Your task to perform on an android device: open app "Google Find My Device" (install if not already installed) Image 0: 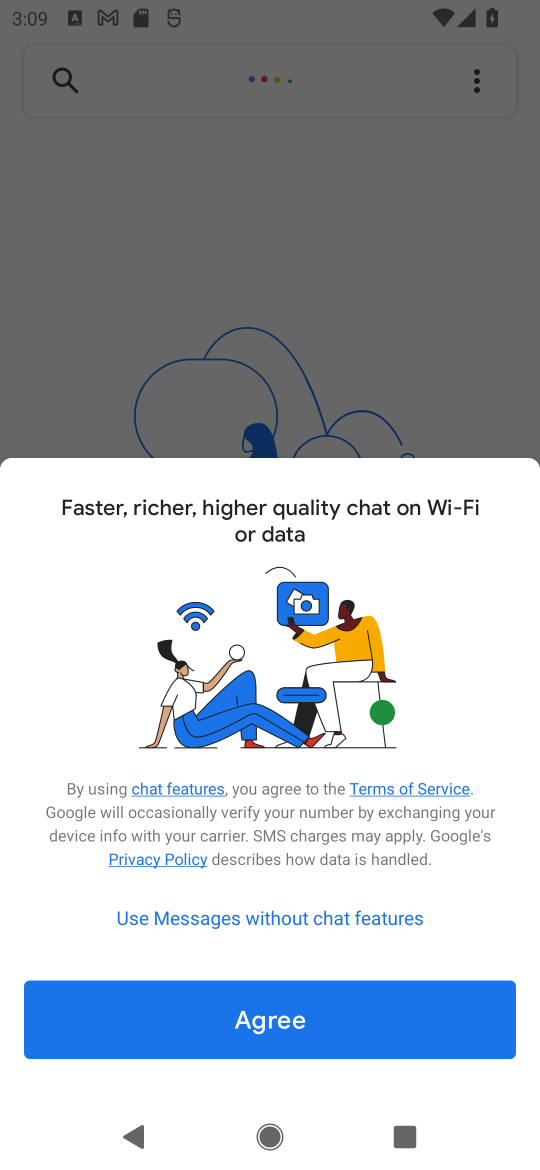
Step 0: press home button
Your task to perform on an android device: open app "Google Find My Device" (install if not already installed) Image 1: 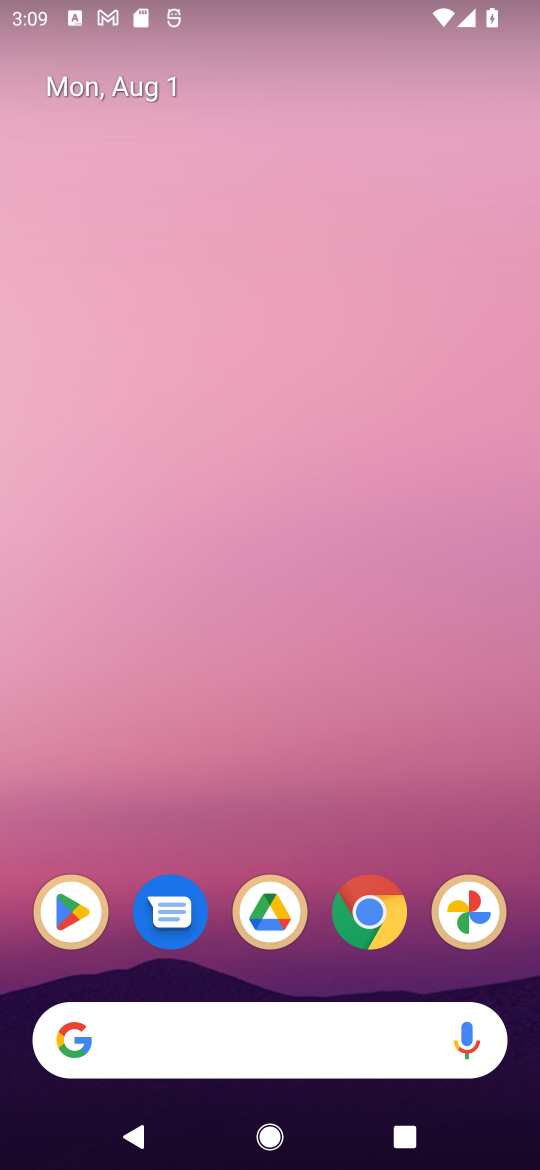
Step 1: click (89, 923)
Your task to perform on an android device: open app "Google Find My Device" (install if not already installed) Image 2: 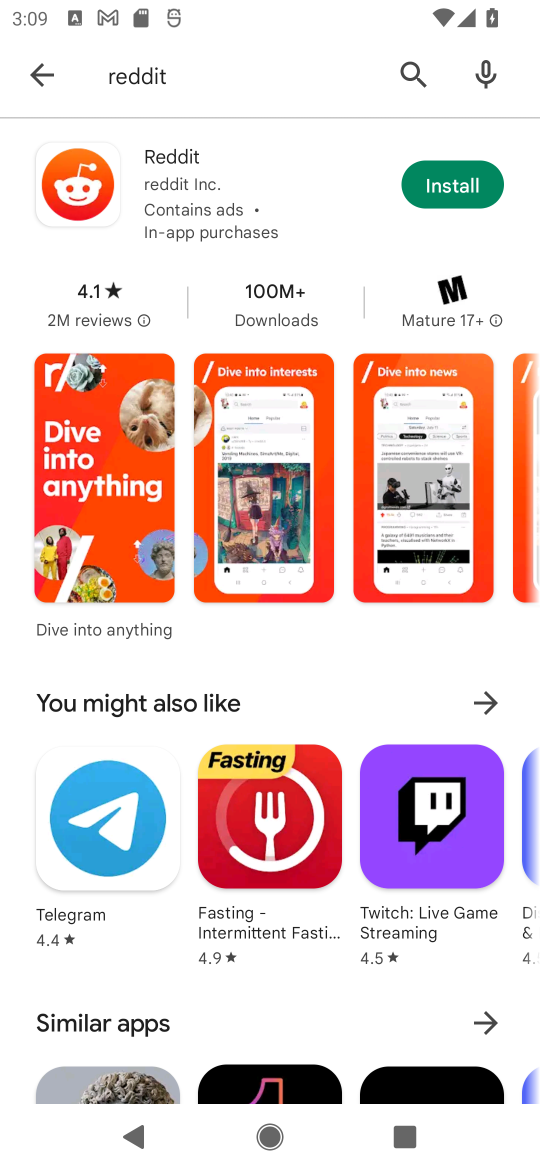
Step 2: click (414, 72)
Your task to perform on an android device: open app "Google Find My Device" (install if not already installed) Image 3: 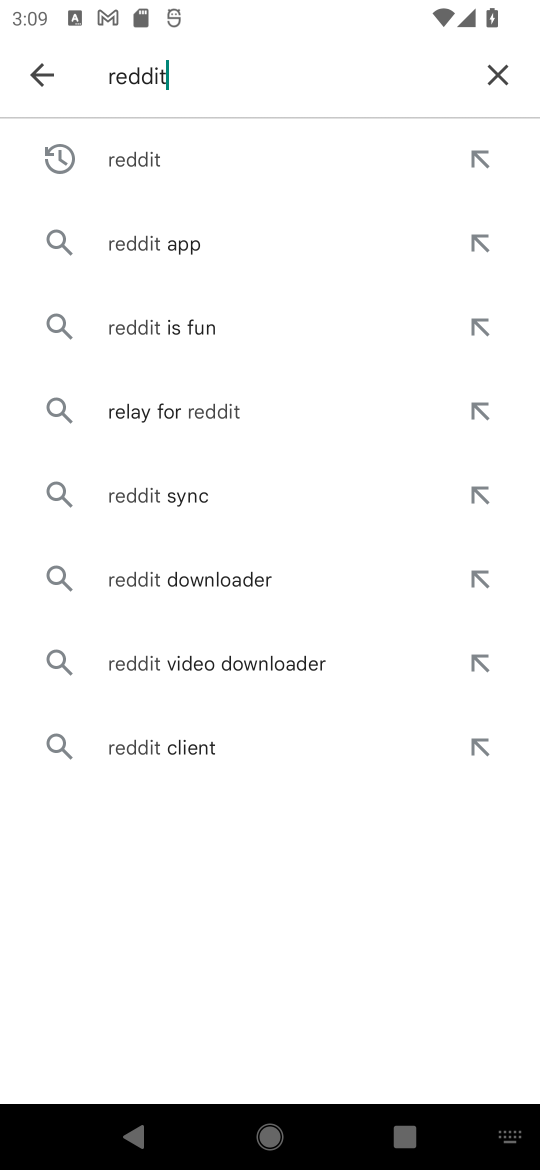
Step 3: click (500, 78)
Your task to perform on an android device: open app "Google Find My Device" (install if not already installed) Image 4: 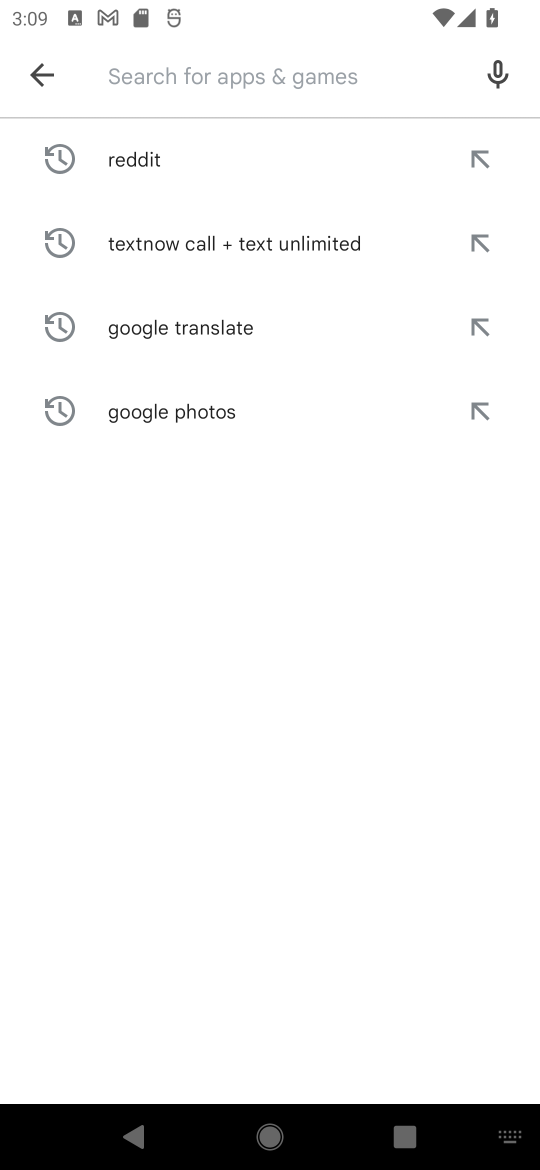
Step 4: type "Google Find My Device"
Your task to perform on an android device: open app "Google Find My Device" (install if not already installed) Image 5: 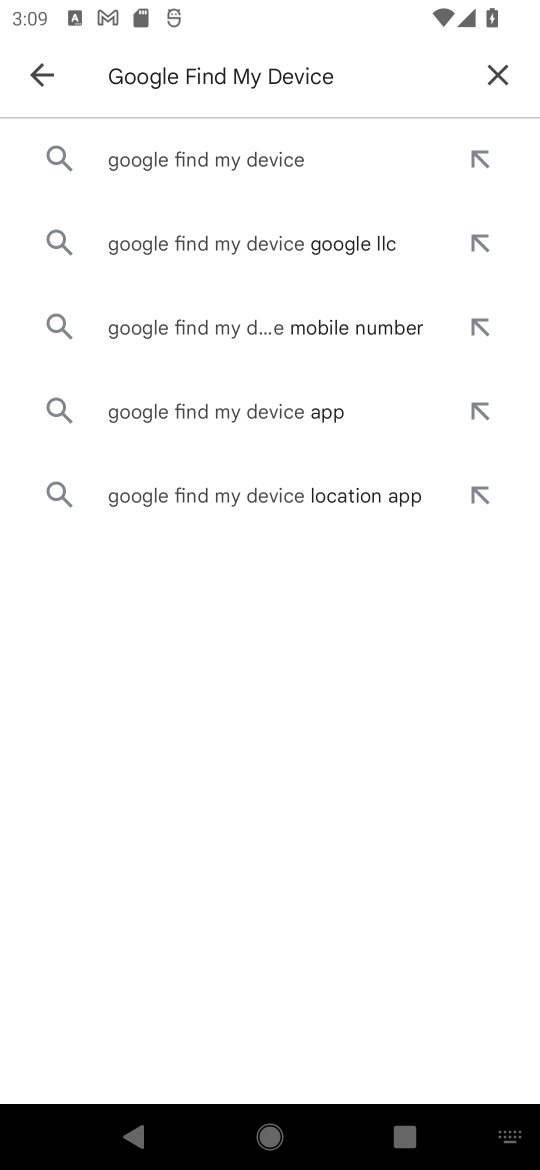
Step 5: click (276, 151)
Your task to perform on an android device: open app "Google Find My Device" (install if not already installed) Image 6: 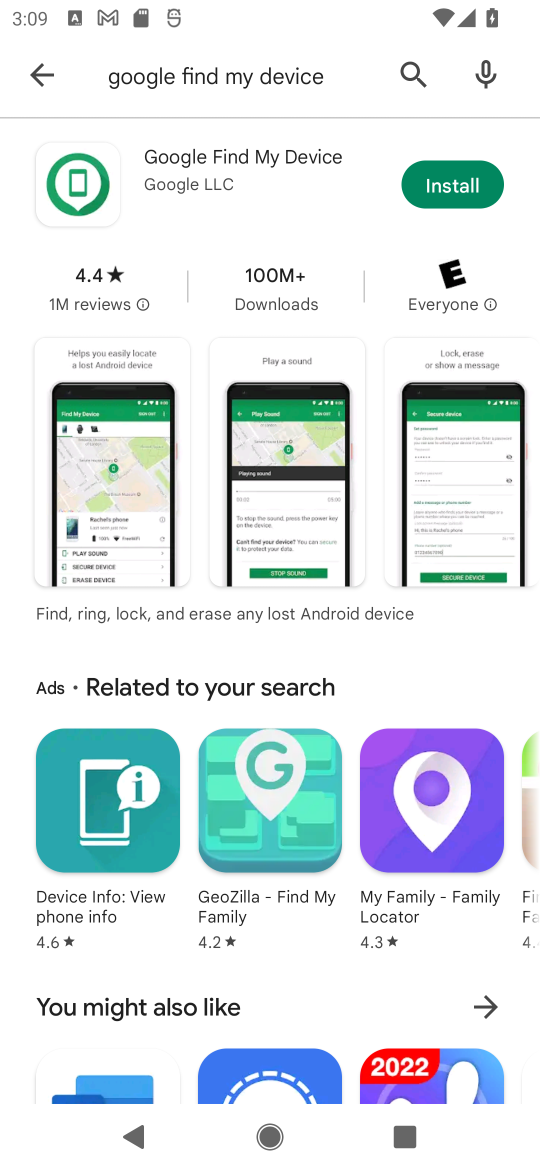
Step 6: click (451, 186)
Your task to perform on an android device: open app "Google Find My Device" (install if not already installed) Image 7: 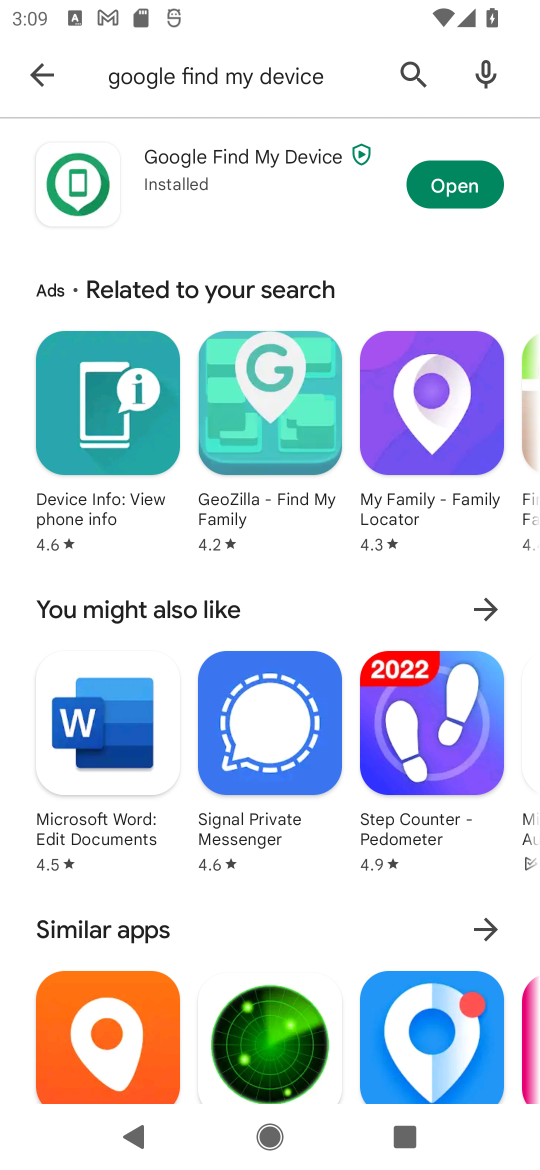
Step 7: click (463, 182)
Your task to perform on an android device: open app "Google Find My Device" (install if not already installed) Image 8: 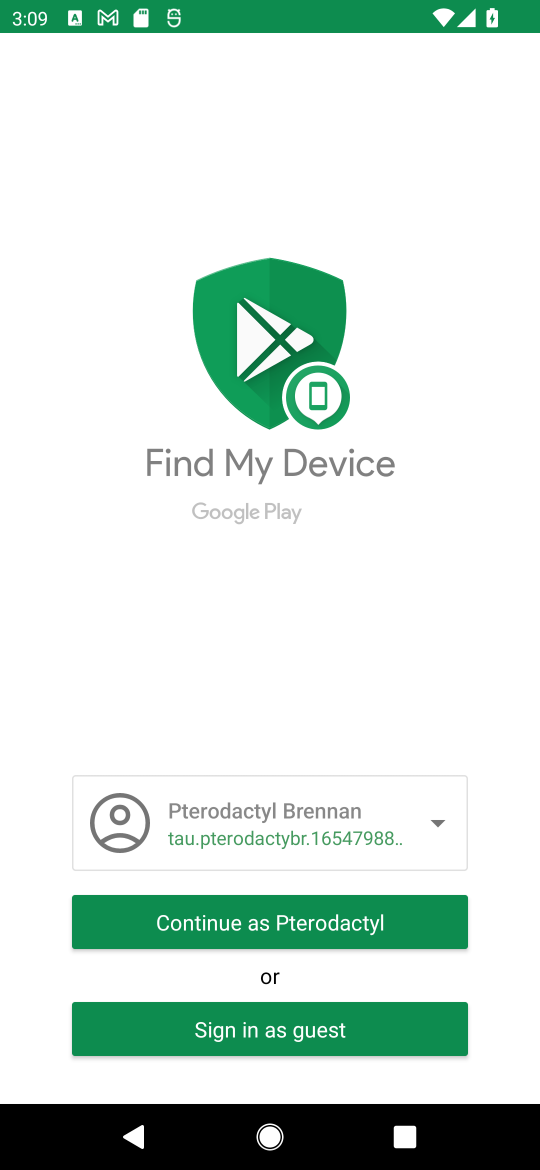
Step 8: task complete